Your task to perform on an android device: Open network settings Image 0: 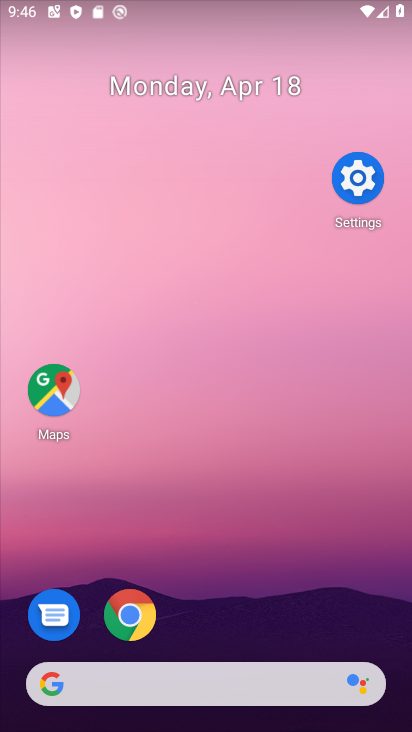
Step 0: drag from (267, 653) to (203, 68)
Your task to perform on an android device: Open network settings Image 1: 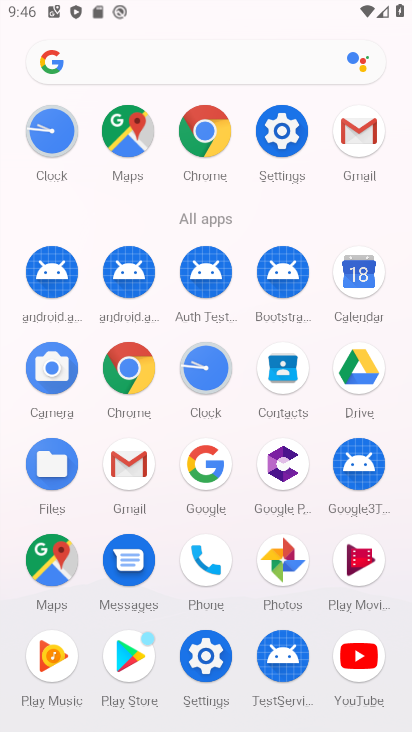
Step 1: click (280, 135)
Your task to perform on an android device: Open network settings Image 2: 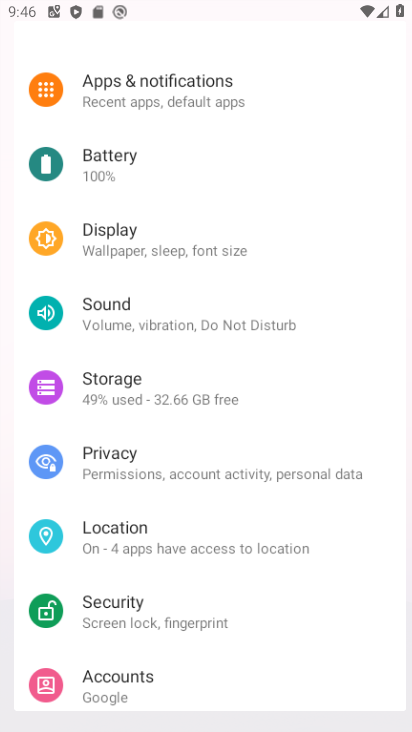
Step 2: click (281, 134)
Your task to perform on an android device: Open network settings Image 3: 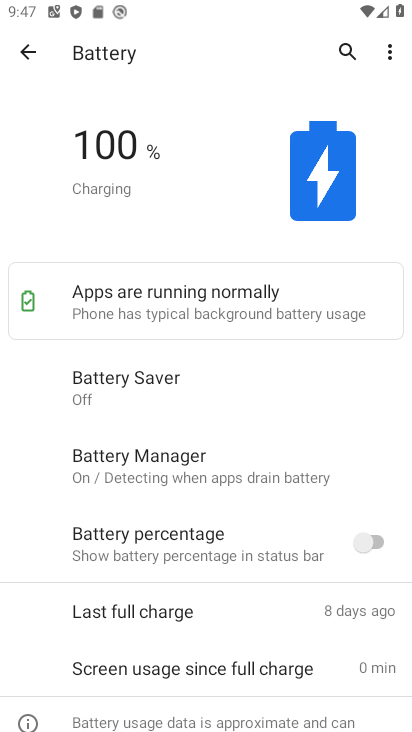
Step 3: click (20, 55)
Your task to perform on an android device: Open network settings Image 4: 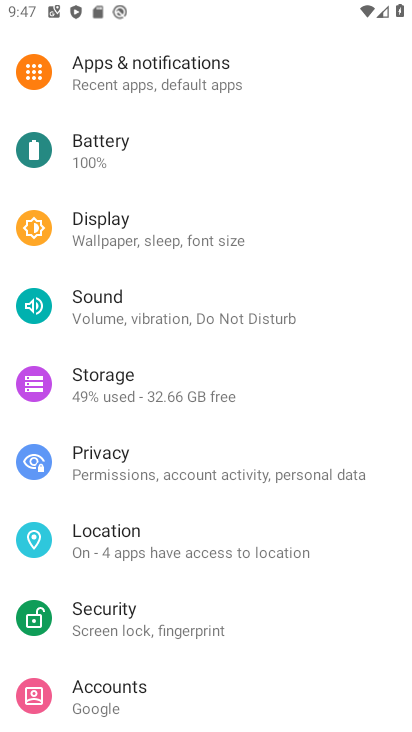
Step 4: drag from (215, 123) to (242, 423)
Your task to perform on an android device: Open network settings Image 5: 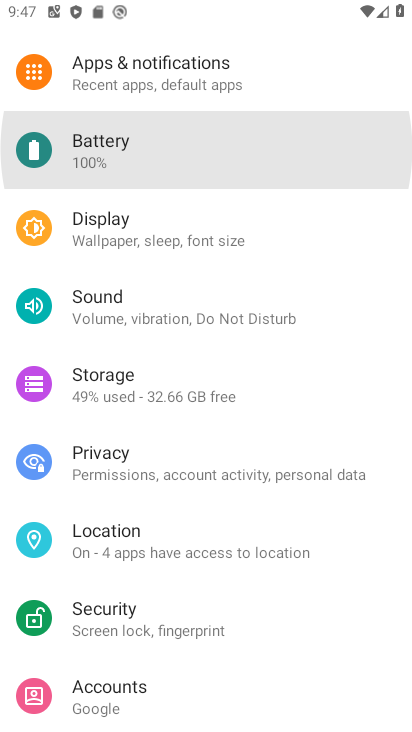
Step 5: drag from (224, 378) to (252, 466)
Your task to perform on an android device: Open network settings Image 6: 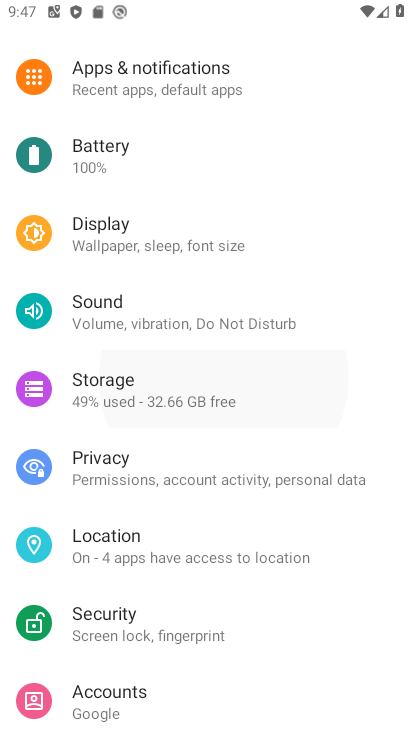
Step 6: click (216, 325)
Your task to perform on an android device: Open network settings Image 7: 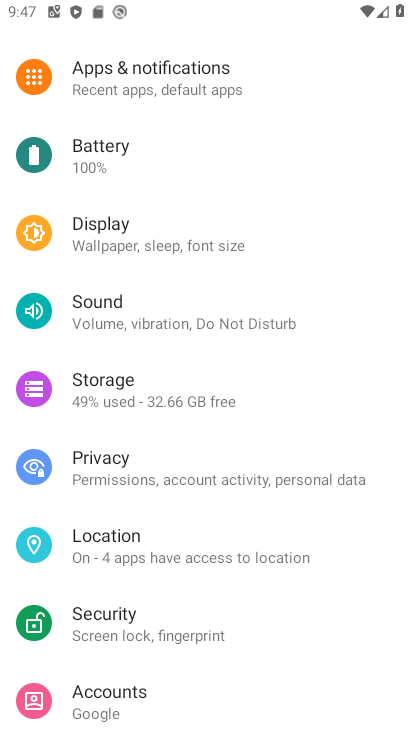
Step 7: drag from (183, 240) to (191, 464)
Your task to perform on an android device: Open network settings Image 8: 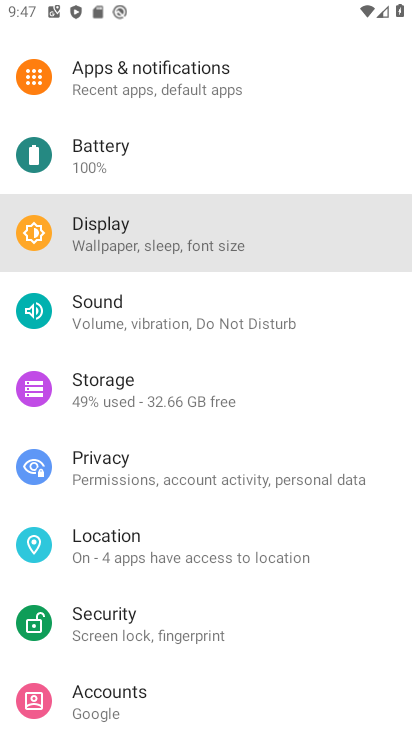
Step 8: drag from (196, 468) to (158, 522)
Your task to perform on an android device: Open network settings Image 9: 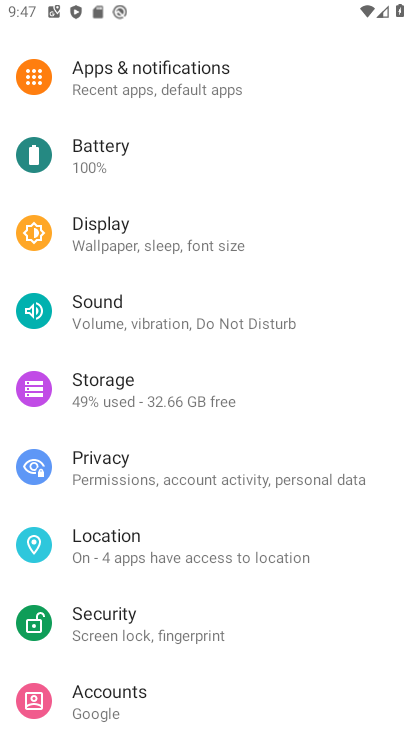
Step 9: drag from (187, 455) to (215, 218)
Your task to perform on an android device: Open network settings Image 10: 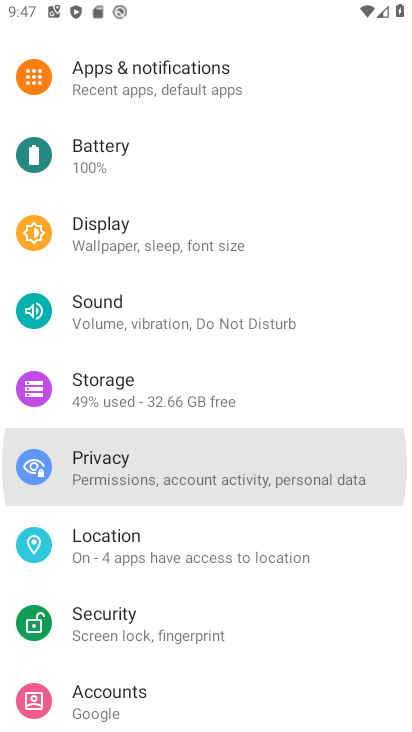
Step 10: drag from (163, 306) to (212, 129)
Your task to perform on an android device: Open network settings Image 11: 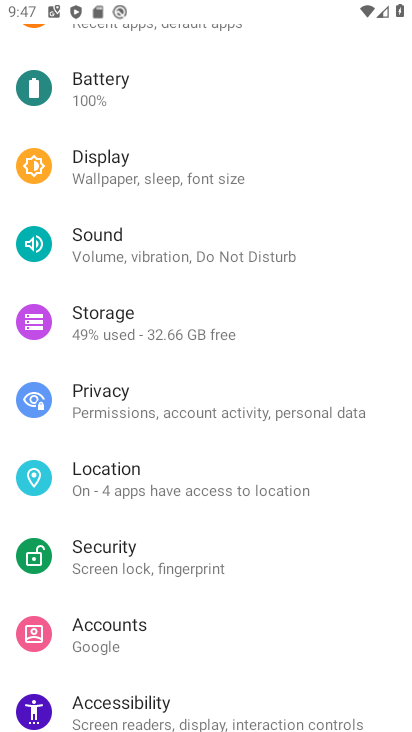
Step 11: drag from (199, 336) to (184, 169)
Your task to perform on an android device: Open network settings Image 12: 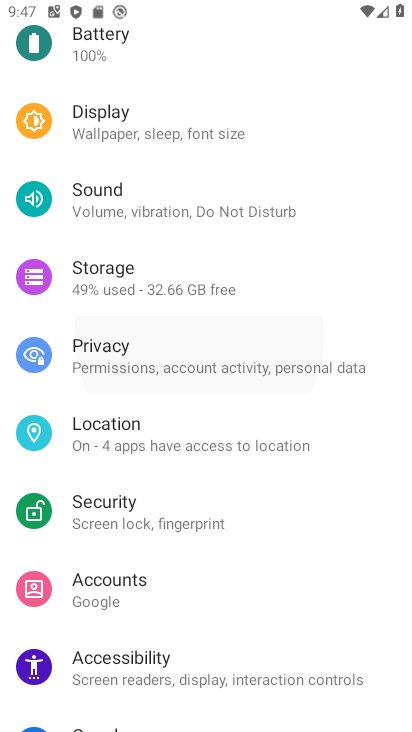
Step 12: drag from (226, 522) to (301, 201)
Your task to perform on an android device: Open network settings Image 13: 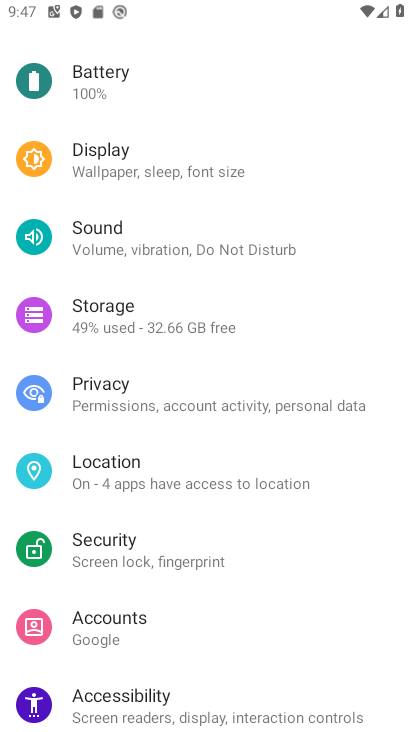
Step 13: drag from (239, 195) to (183, 411)
Your task to perform on an android device: Open network settings Image 14: 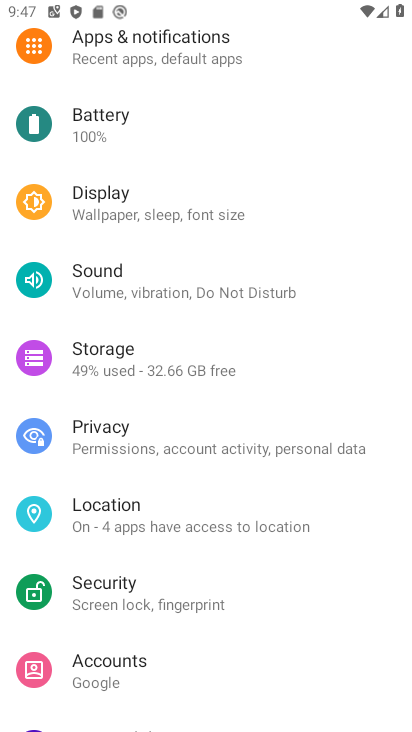
Step 14: drag from (119, 119) to (172, 577)
Your task to perform on an android device: Open network settings Image 15: 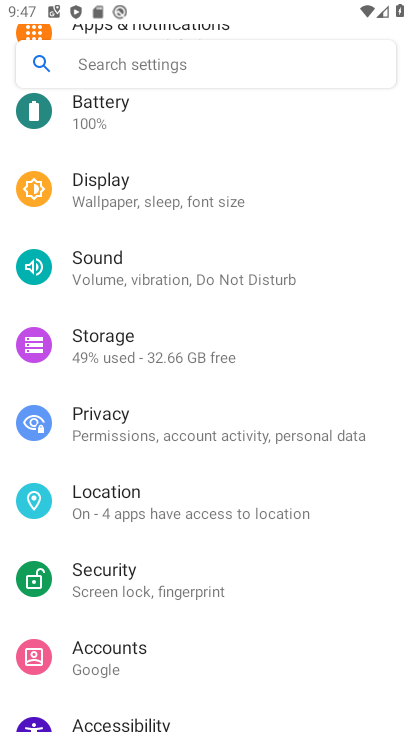
Step 15: drag from (137, 525) to (175, 488)
Your task to perform on an android device: Open network settings Image 16: 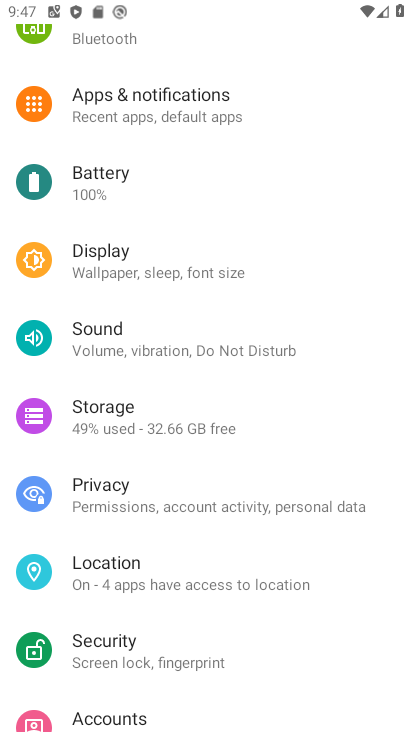
Step 16: drag from (135, 116) to (134, 534)
Your task to perform on an android device: Open network settings Image 17: 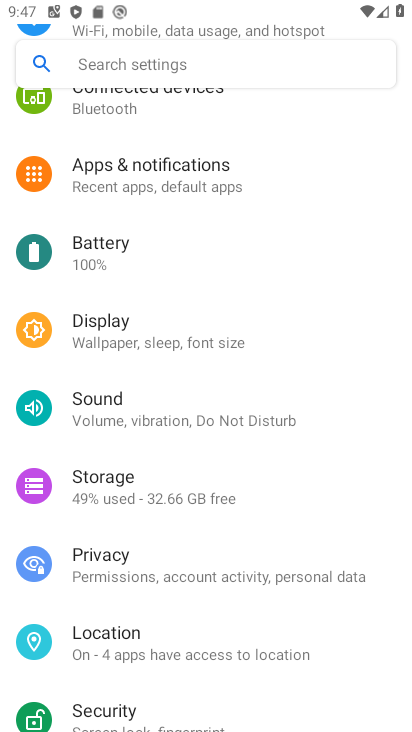
Step 17: drag from (163, 191) to (206, 508)
Your task to perform on an android device: Open network settings Image 18: 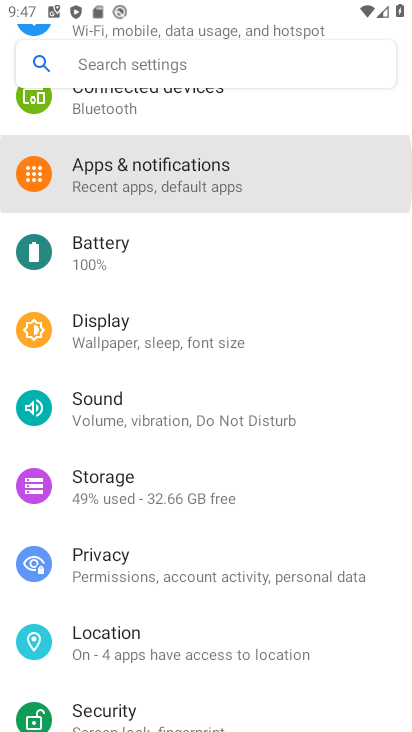
Step 18: drag from (192, 236) to (240, 589)
Your task to perform on an android device: Open network settings Image 19: 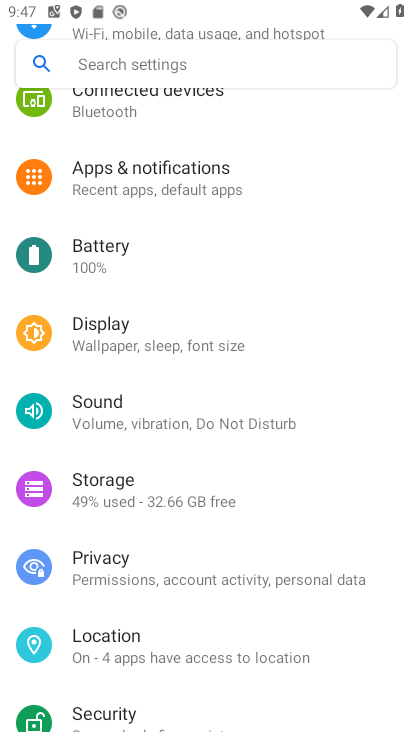
Step 19: drag from (213, 229) to (215, 600)
Your task to perform on an android device: Open network settings Image 20: 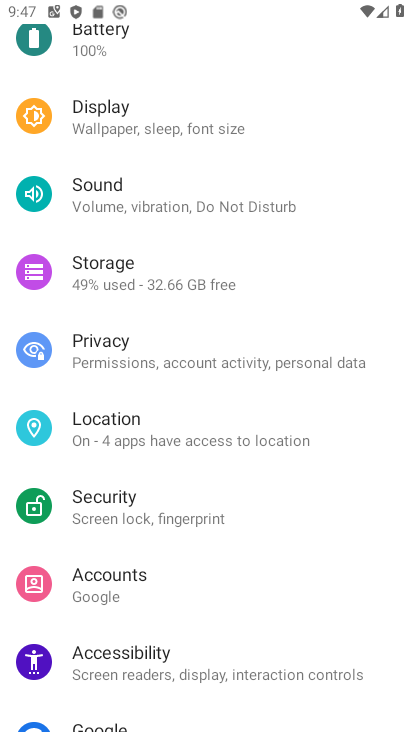
Step 20: drag from (200, 408) to (241, 565)
Your task to perform on an android device: Open network settings Image 21: 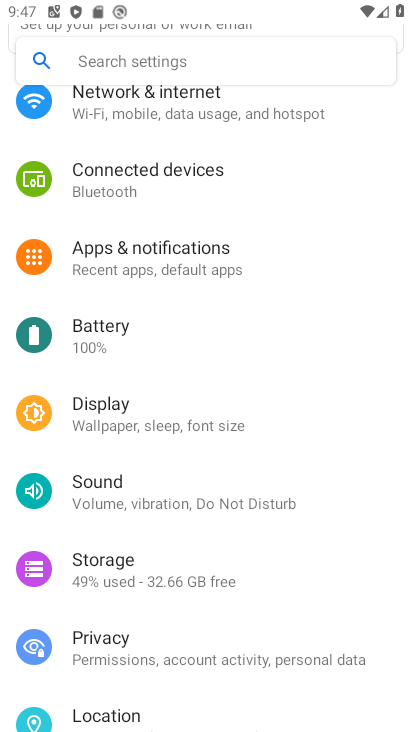
Step 21: click (149, 111)
Your task to perform on an android device: Open network settings Image 22: 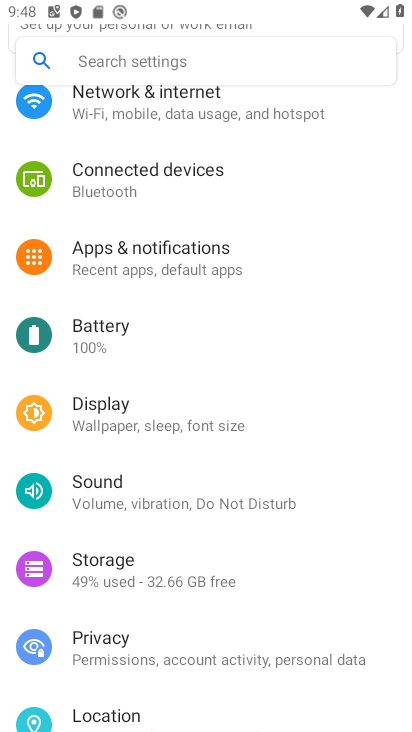
Step 22: click (149, 111)
Your task to perform on an android device: Open network settings Image 23: 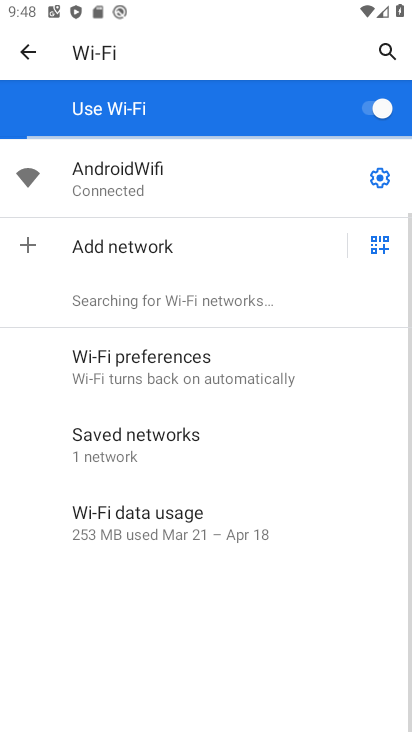
Step 23: click (380, 108)
Your task to perform on an android device: Open network settings Image 24: 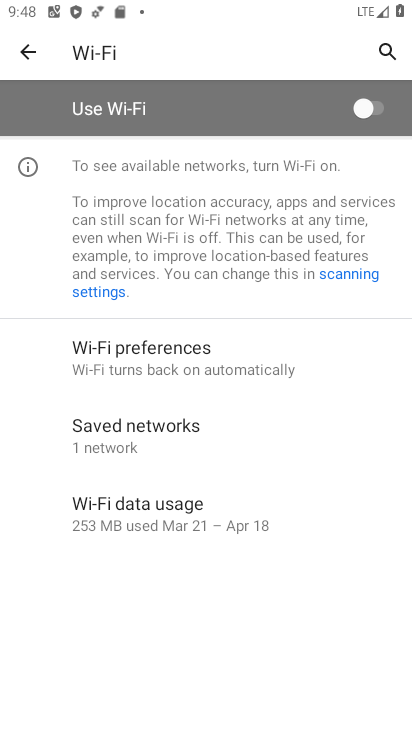
Step 24: task complete